Your task to perform on an android device: Go to calendar. Show me events next week Image 0: 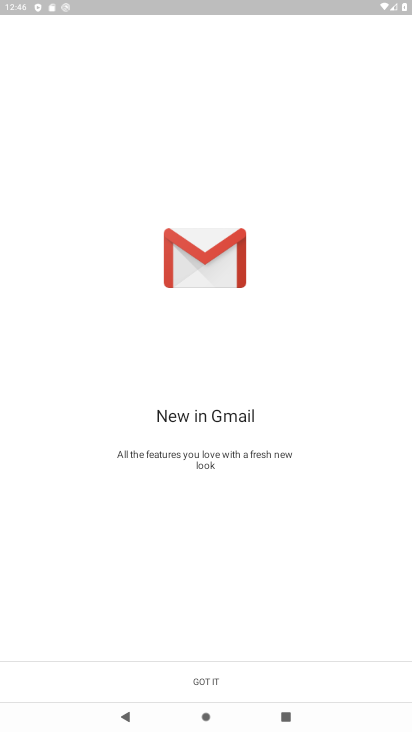
Step 0: press home button
Your task to perform on an android device: Go to calendar. Show me events next week Image 1: 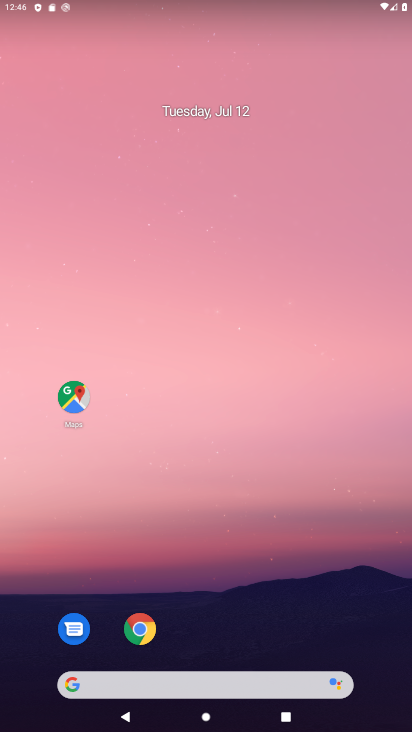
Step 1: drag from (217, 647) to (252, 98)
Your task to perform on an android device: Go to calendar. Show me events next week Image 2: 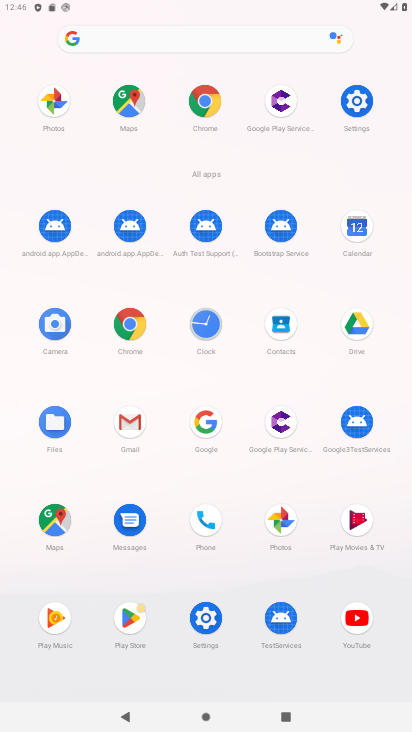
Step 2: click (352, 220)
Your task to perform on an android device: Go to calendar. Show me events next week Image 3: 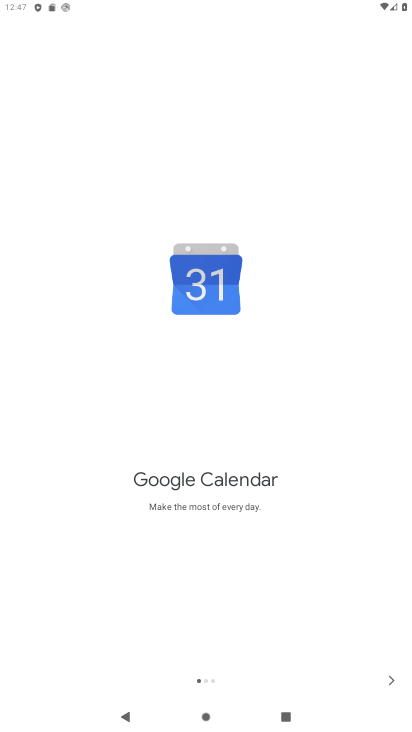
Step 3: click (389, 676)
Your task to perform on an android device: Go to calendar. Show me events next week Image 4: 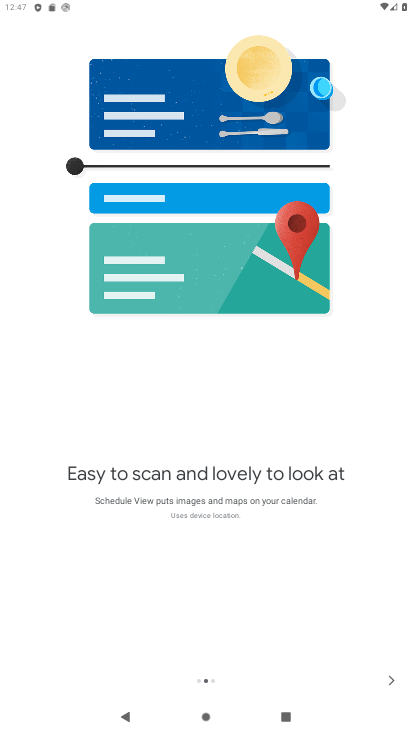
Step 4: click (384, 678)
Your task to perform on an android device: Go to calendar. Show me events next week Image 5: 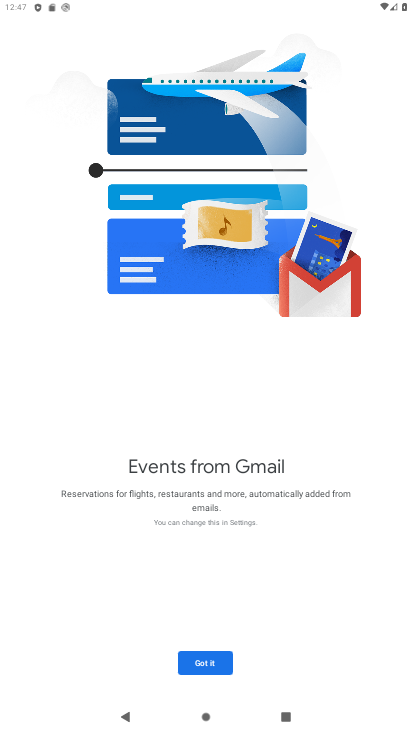
Step 5: click (210, 654)
Your task to perform on an android device: Go to calendar. Show me events next week Image 6: 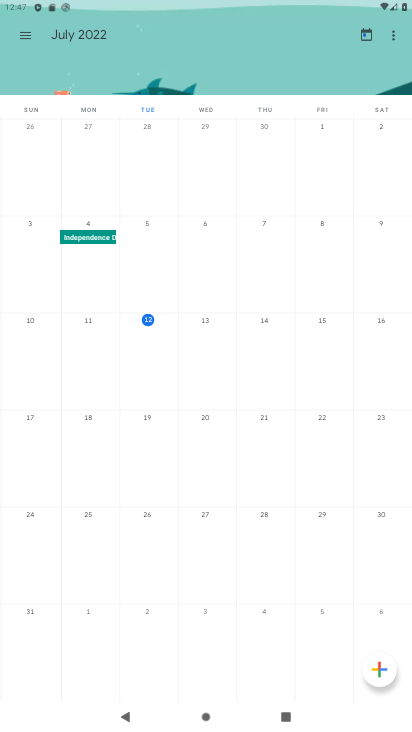
Step 6: click (30, 413)
Your task to perform on an android device: Go to calendar. Show me events next week Image 7: 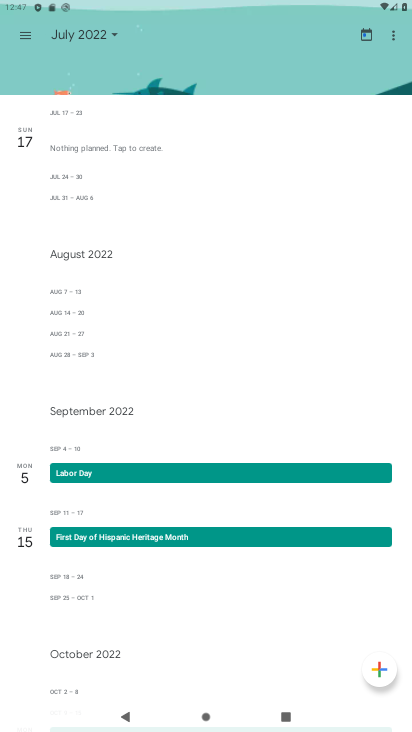
Step 7: task complete